Your task to perform on an android device: What is the news today? Image 0: 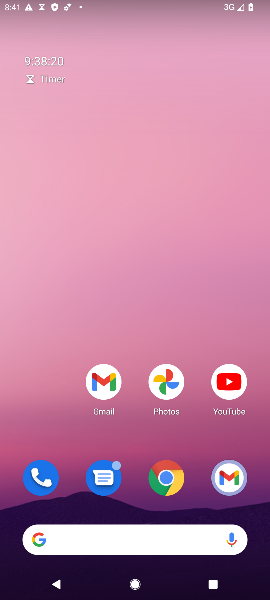
Step 0: click (171, 475)
Your task to perform on an android device: What is the news today? Image 1: 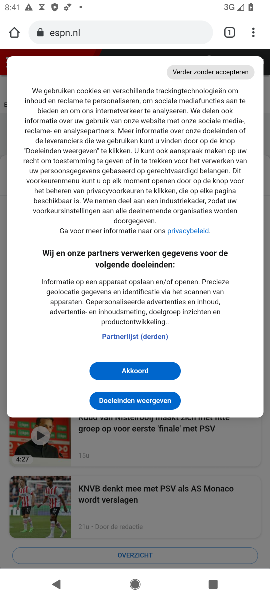
Step 1: click (117, 36)
Your task to perform on an android device: What is the news today? Image 2: 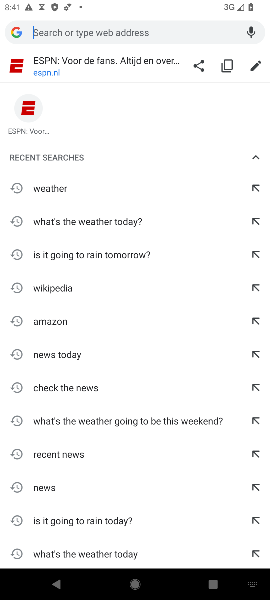
Step 2: type "What is the news today?"
Your task to perform on an android device: What is the news today? Image 3: 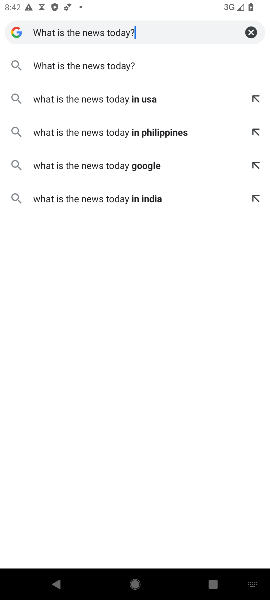
Step 3: click (118, 65)
Your task to perform on an android device: What is the news today? Image 4: 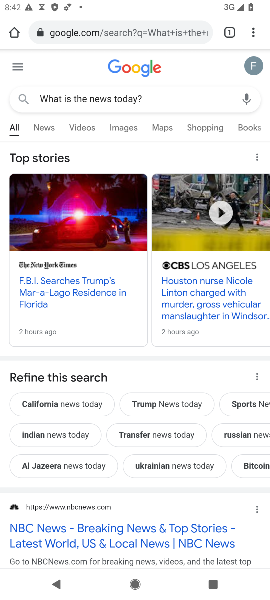
Step 4: task complete